Your task to perform on an android device: delete a single message in the gmail app Image 0: 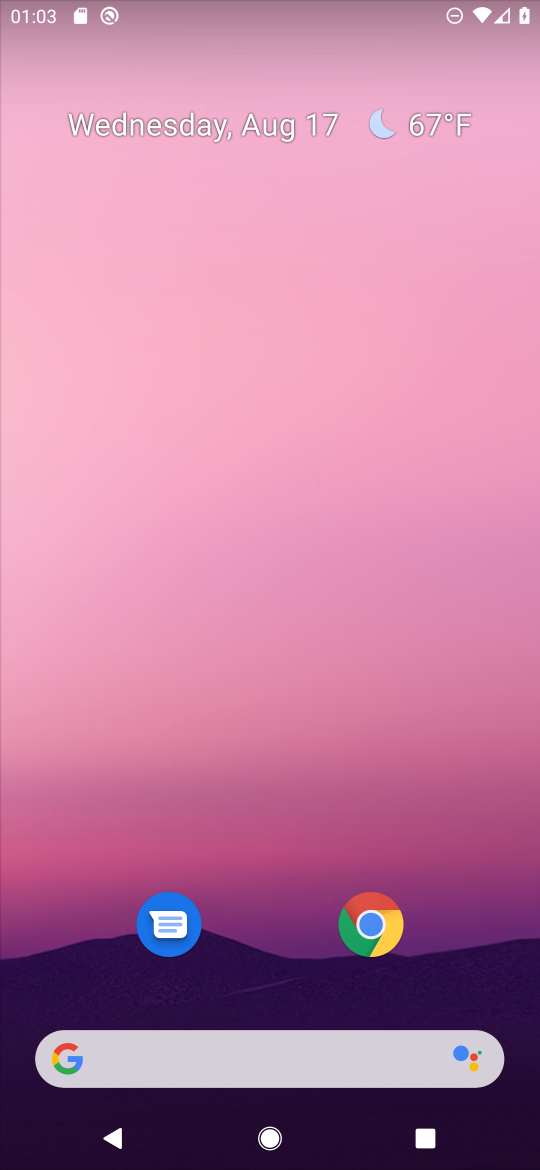
Step 0: drag from (277, 996) to (229, 32)
Your task to perform on an android device: delete a single message in the gmail app Image 1: 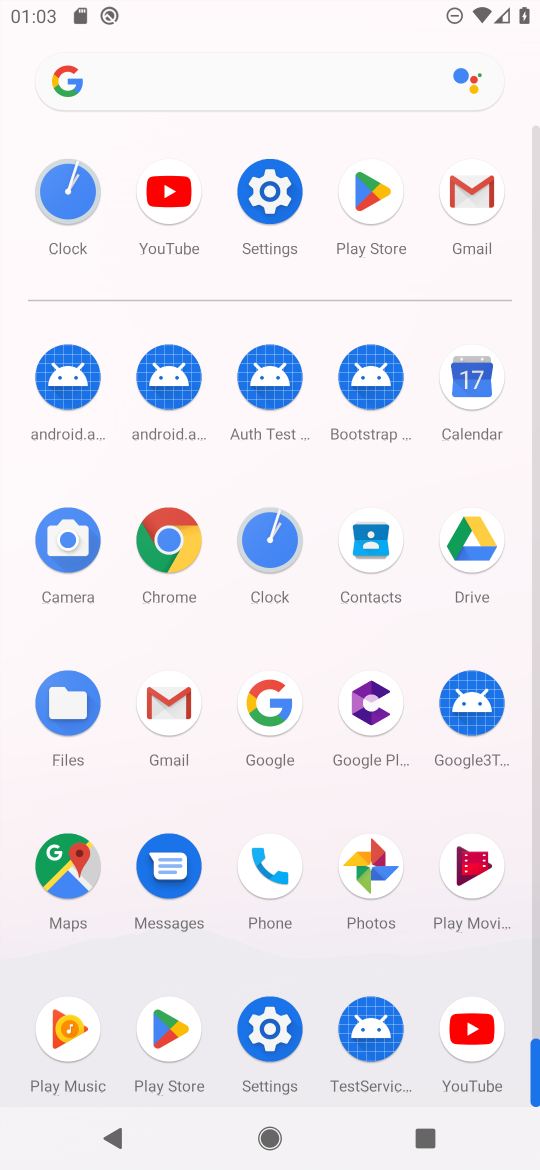
Step 1: click (490, 201)
Your task to perform on an android device: delete a single message in the gmail app Image 2: 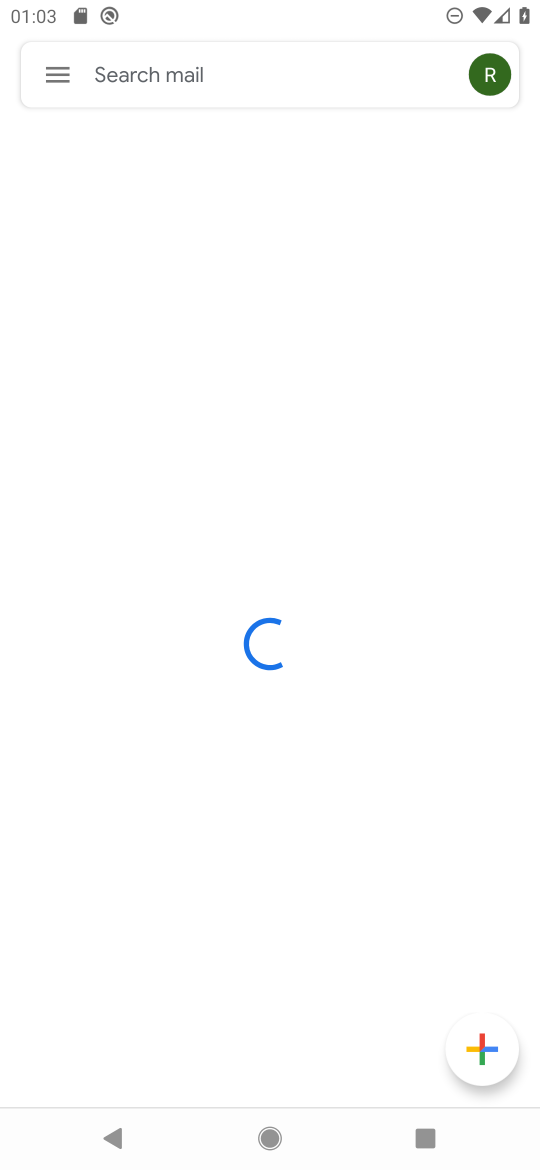
Step 2: click (71, 78)
Your task to perform on an android device: delete a single message in the gmail app Image 3: 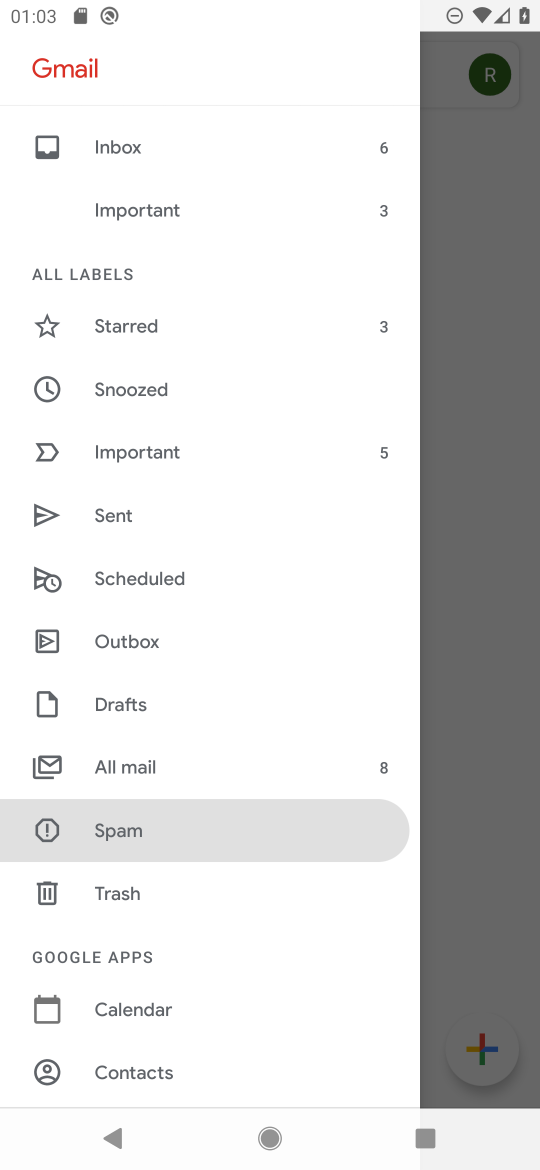
Step 3: click (189, 142)
Your task to perform on an android device: delete a single message in the gmail app Image 4: 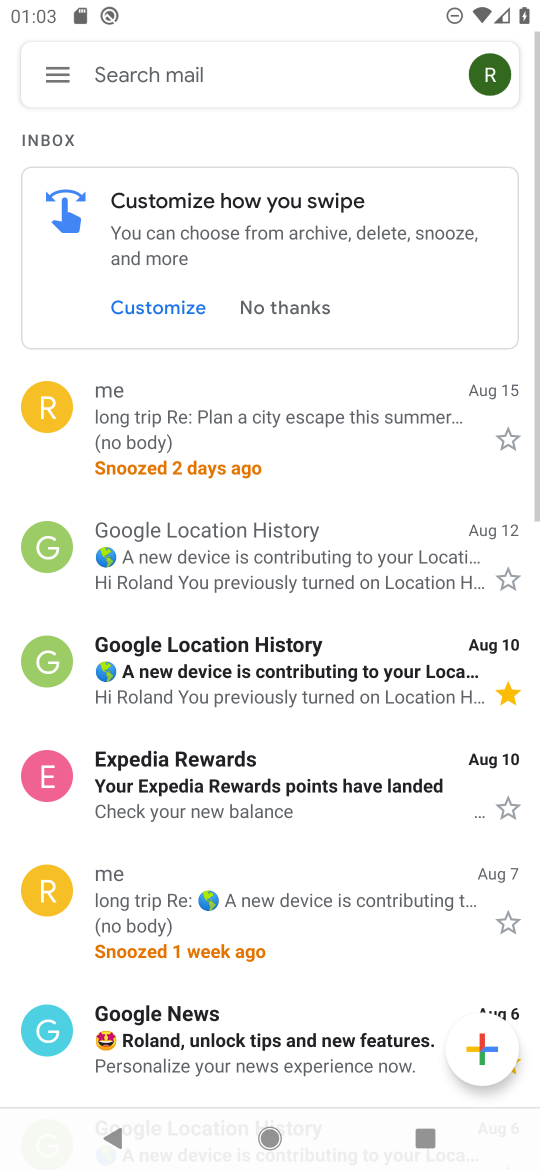
Step 4: click (39, 403)
Your task to perform on an android device: delete a single message in the gmail app Image 5: 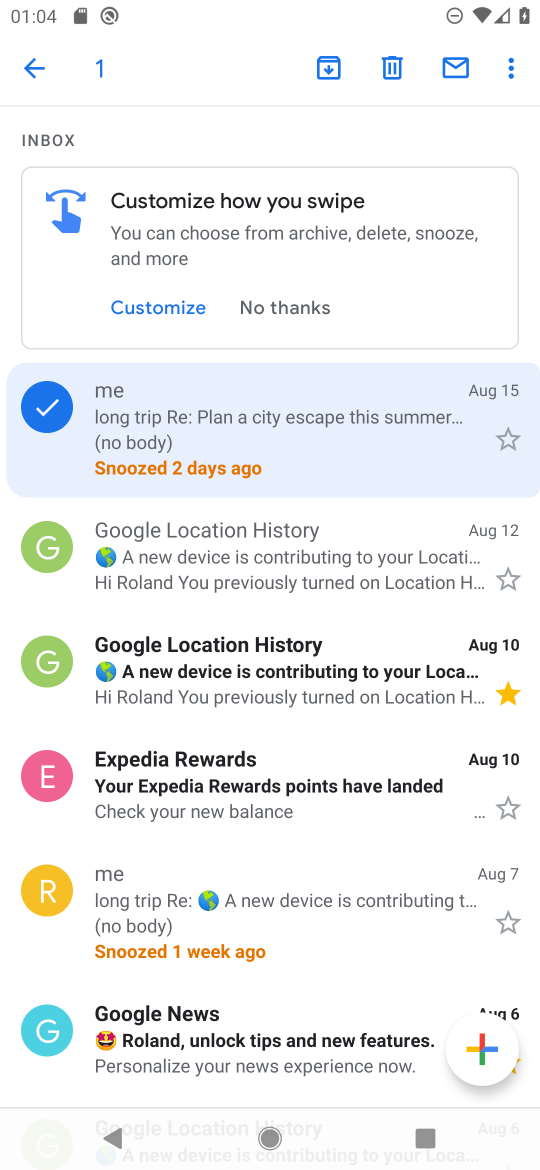
Step 5: click (395, 59)
Your task to perform on an android device: delete a single message in the gmail app Image 6: 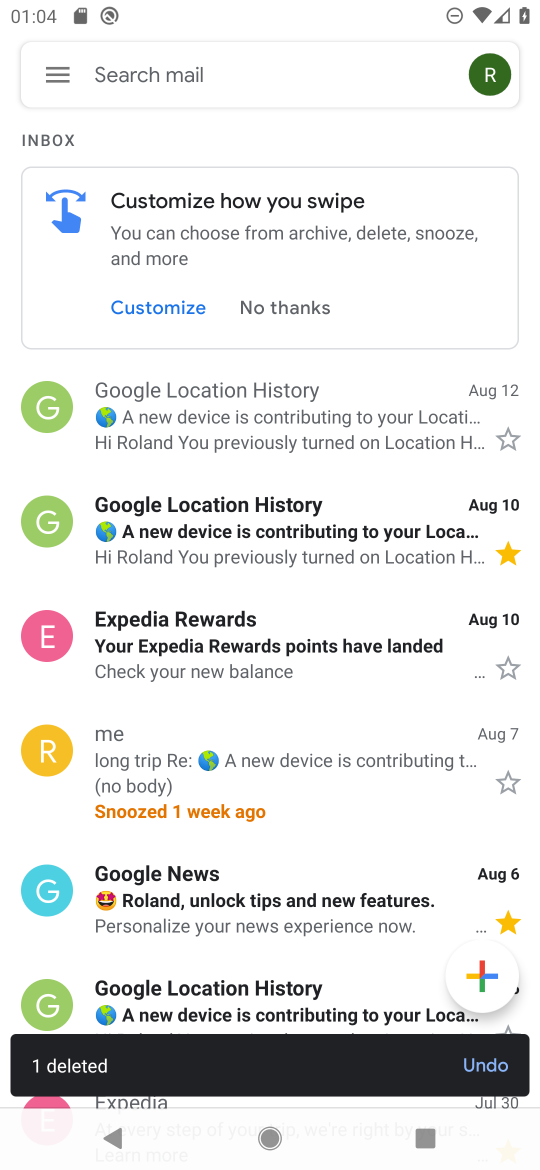
Step 6: task complete